Your task to perform on an android device: Empty the shopping cart on amazon. Search for "usb-a to usb-b" on amazon, select the first entry, and add it to the cart. Image 0: 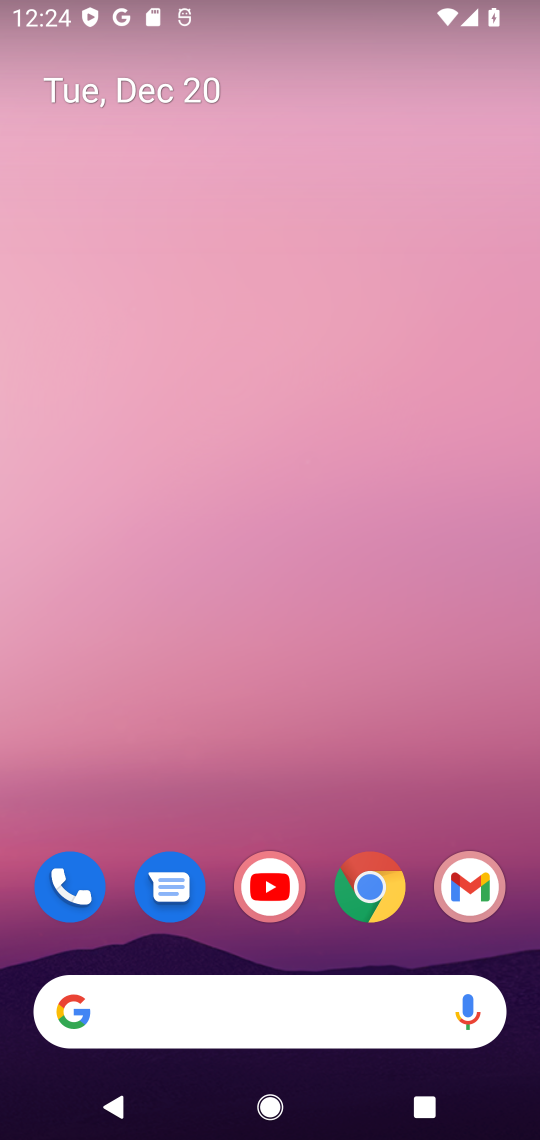
Step 0: click (382, 886)
Your task to perform on an android device: Empty the shopping cart on amazon. Search for "usb-a to usb-b" on amazon, select the first entry, and add it to the cart. Image 1: 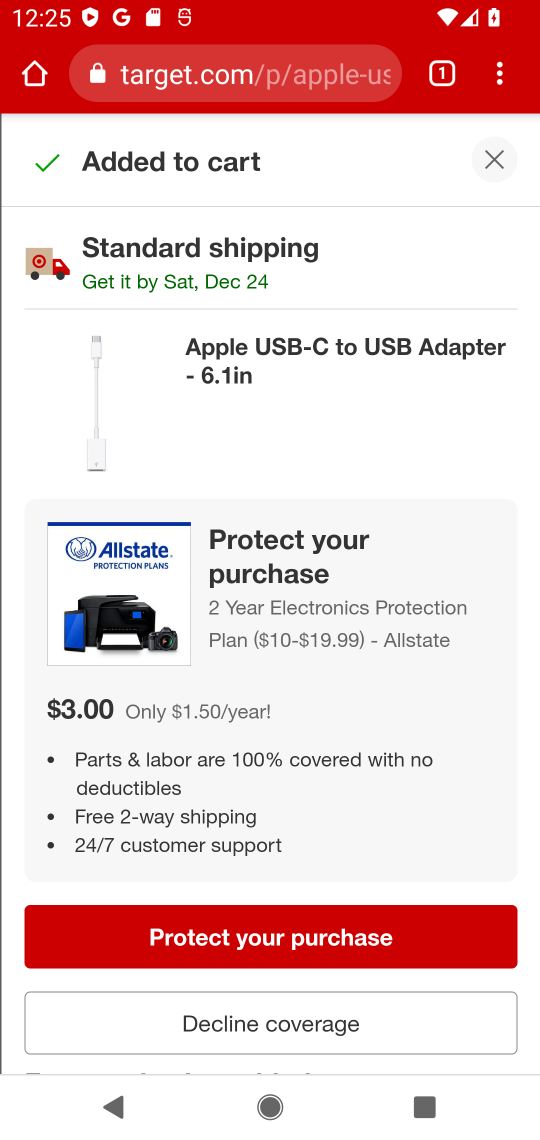
Step 1: click (219, 83)
Your task to perform on an android device: Empty the shopping cart on amazon. Search for "usb-a to usb-b" on amazon, select the first entry, and add it to the cart. Image 2: 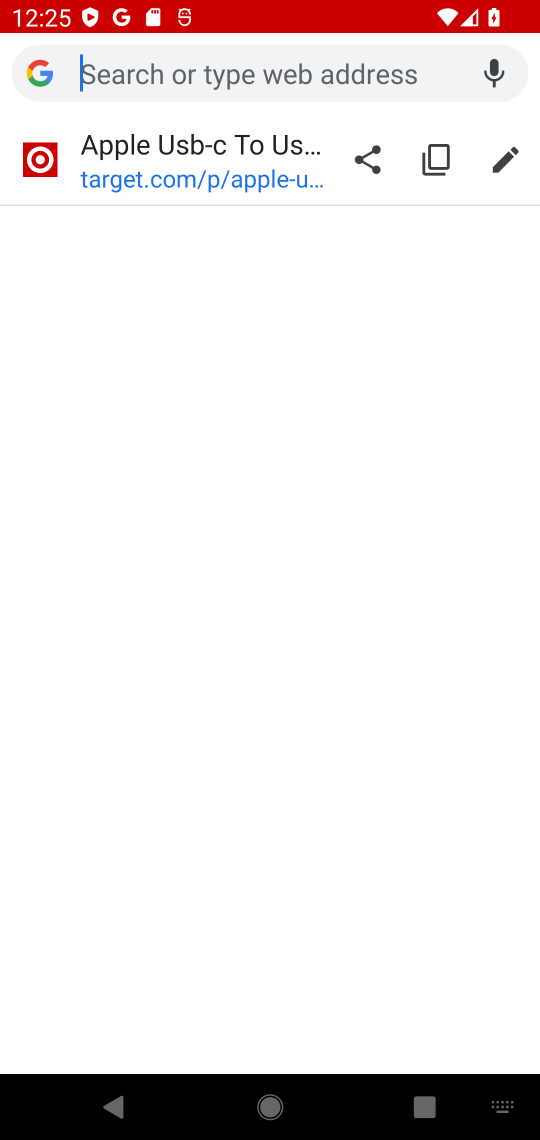
Step 2: type "amazon"
Your task to perform on an android device: Empty the shopping cart on amazon. Search for "usb-a to usb-b" on amazon, select the first entry, and add it to the cart. Image 3: 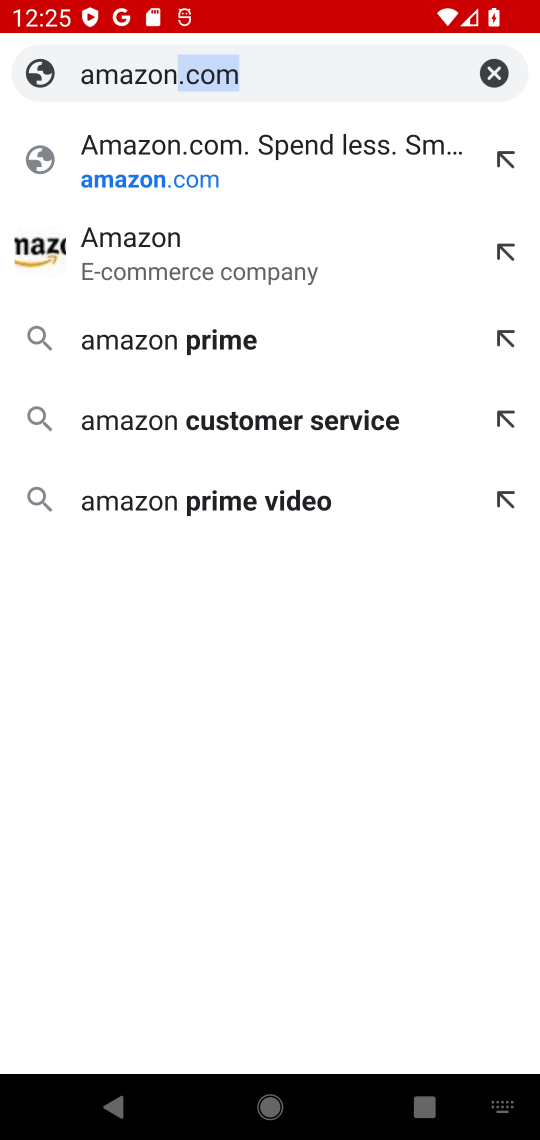
Step 3: click (241, 160)
Your task to perform on an android device: Empty the shopping cart on amazon. Search for "usb-a to usb-b" on amazon, select the first entry, and add it to the cart. Image 4: 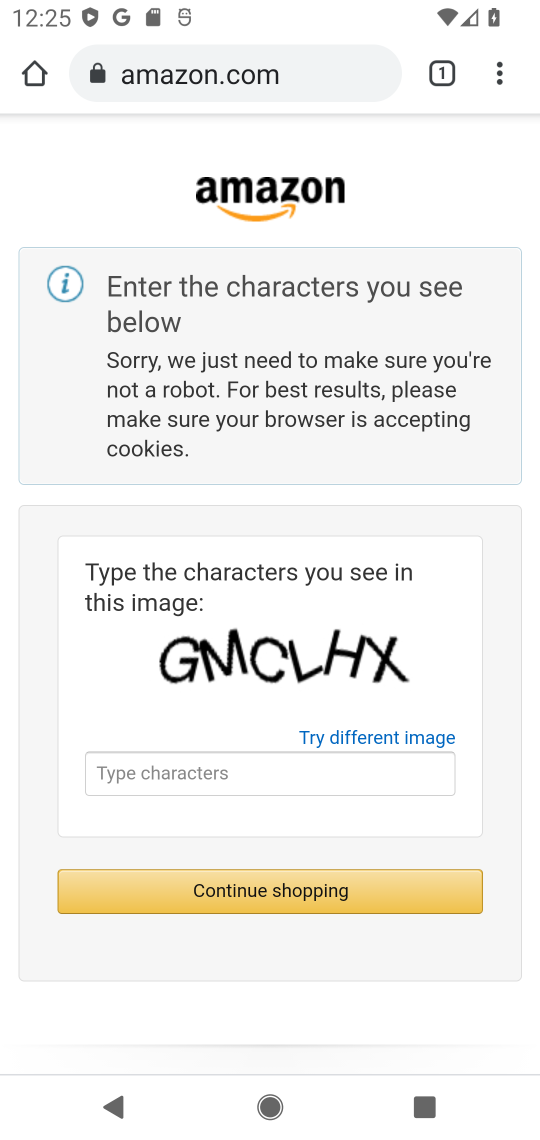
Step 4: click (227, 772)
Your task to perform on an android device: Empty the shopping cart on amazon. Search for "usb-a to usb-b" on amazon, select the first entry, and add it to the cart. Image 5: 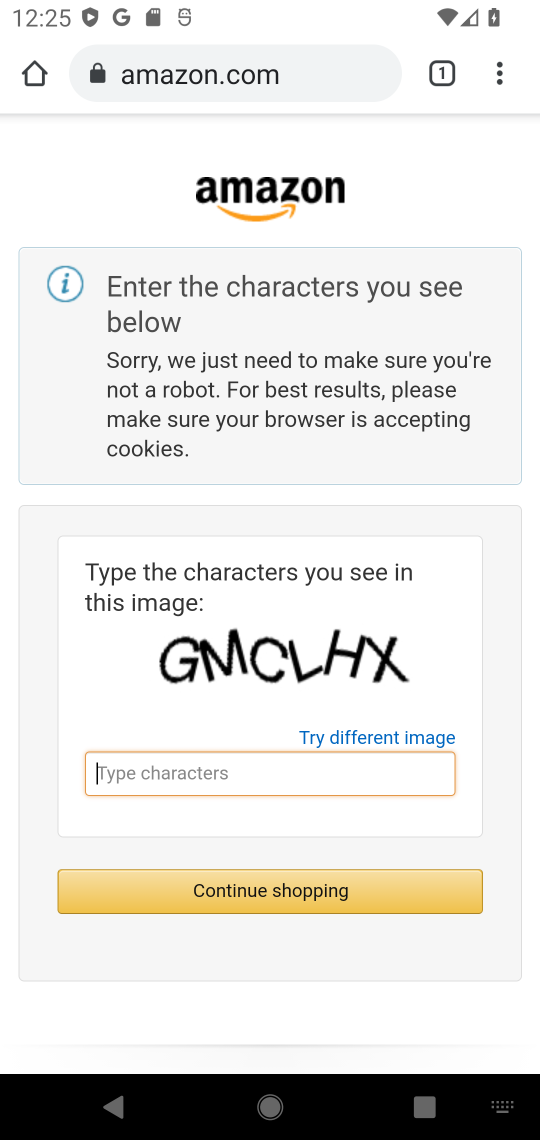
Step 5: type "GMCLHX"
Your task to perform on an android device: Empty the shopping cart on amazon. Search for "usb-a to usb-b" on amazon, select the first entry, and add it to the cart. Image 6: 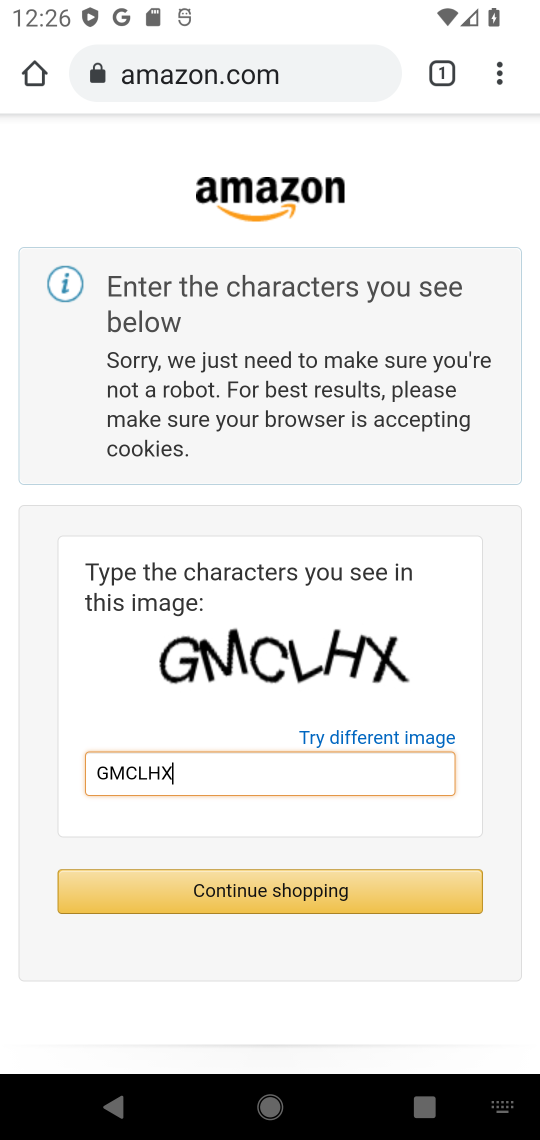
Step 6: click (259, 882)
Your task to perform on an android device: Empty the shopping cart on amazon. Search for "usb-a to usb-b" on amazon, select the first entry, and add it to the cart. Image 7: 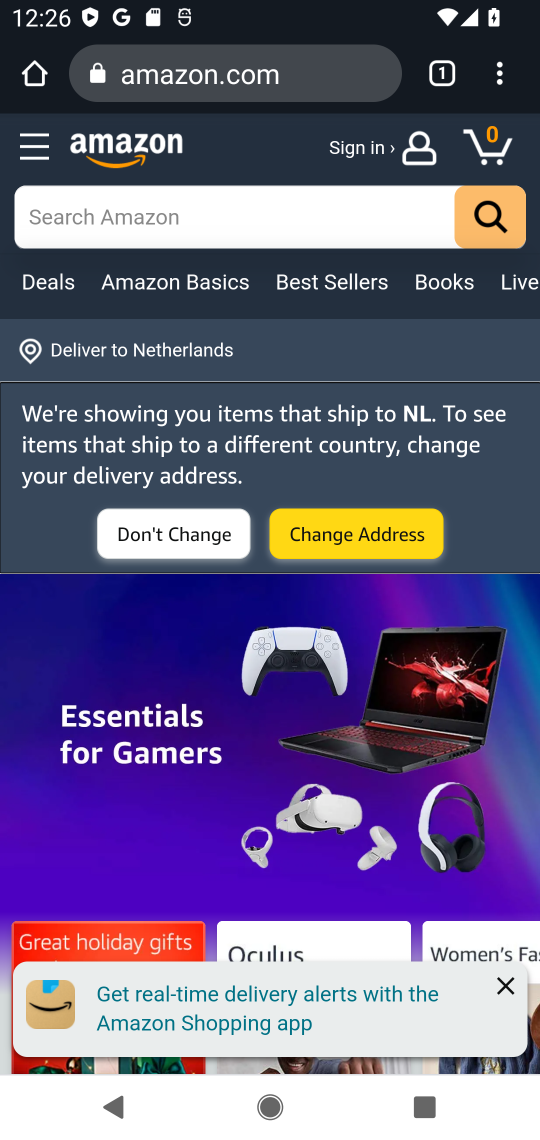
Step 7: click (226, 210)
Your task to perform on an android device: Empty the shopping cart on amazon. Search for "usb-a to usb-b" on amazon, select the first entry, and add it to the cart. Image 8: 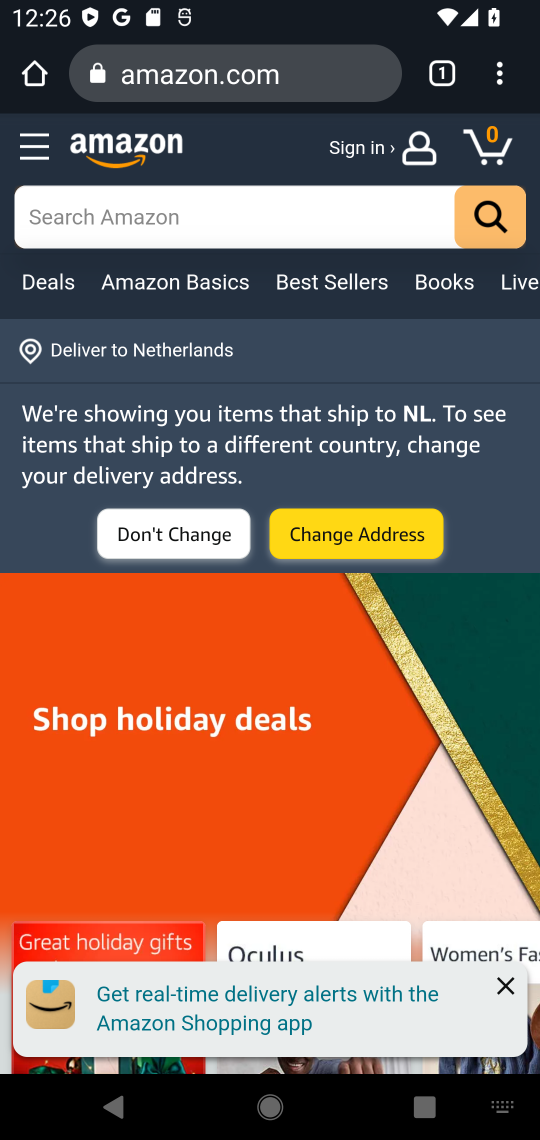
Step 8: type "usb-a to usb-b"
Your task to perform on an android device: Empty the shopping cart on amazon. Search for "usb-a to usb-b" on amazon, select the first entry, and add it to the cart. Image 9: 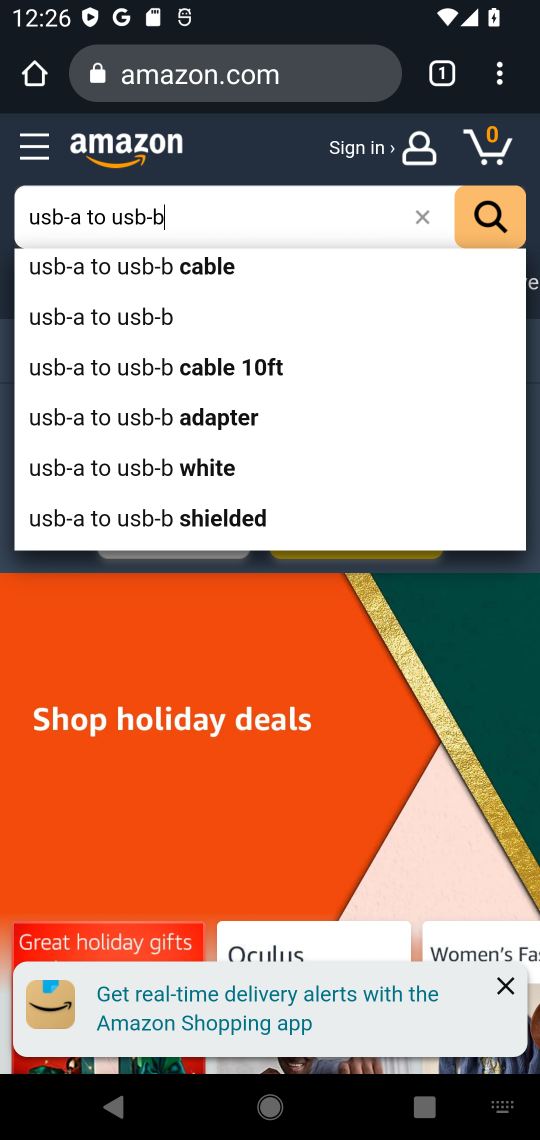
Step 9: click (210, 266)
Your task to perform on an android device: Empty the shopping cart on amazon. Search for "usb-a to usb-b" on amazon, select the first entry, and add it to the cart. Image 10: 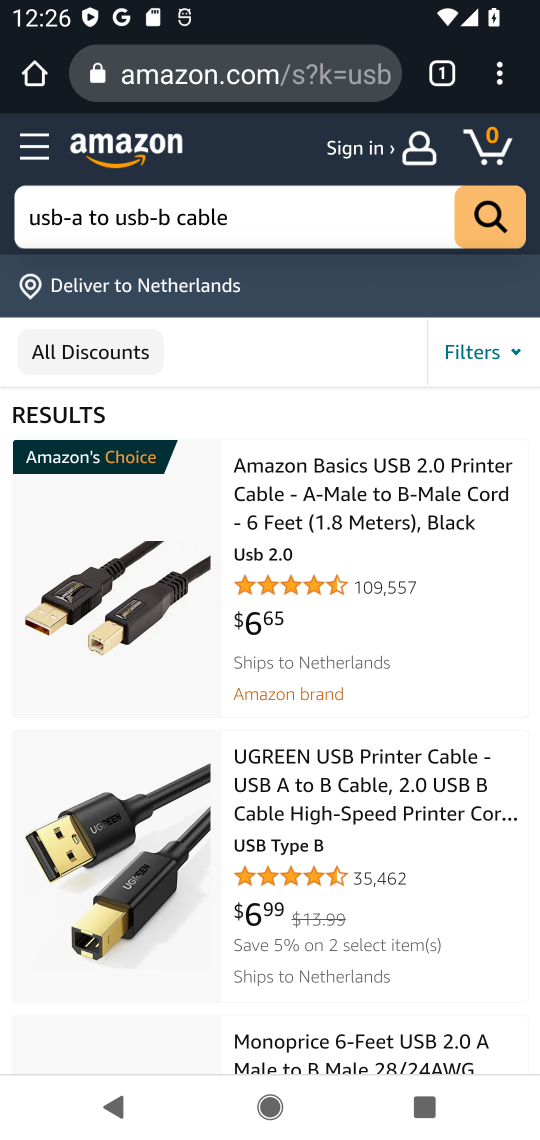
Step 10: click (441, 525)
Your task to perform on an android device: Empty the shopping cart on amazon. Search for "usb-a to usb-b" on amazon, select the first entry, and add it to the cart. Image 11: 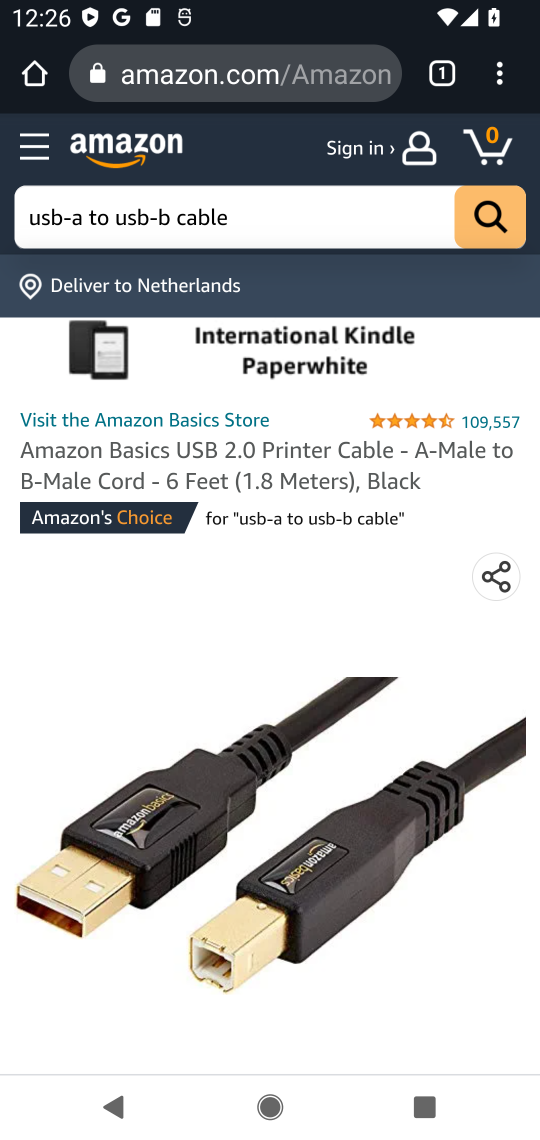
Step 11: drag from (309, 961) to (326, 381)
Your task to perform on an android device: Empty the shopping cart on amazon. Search for "usb-a to usb-b" on amazon, select the first entry, and add it to the cart. Image 12: 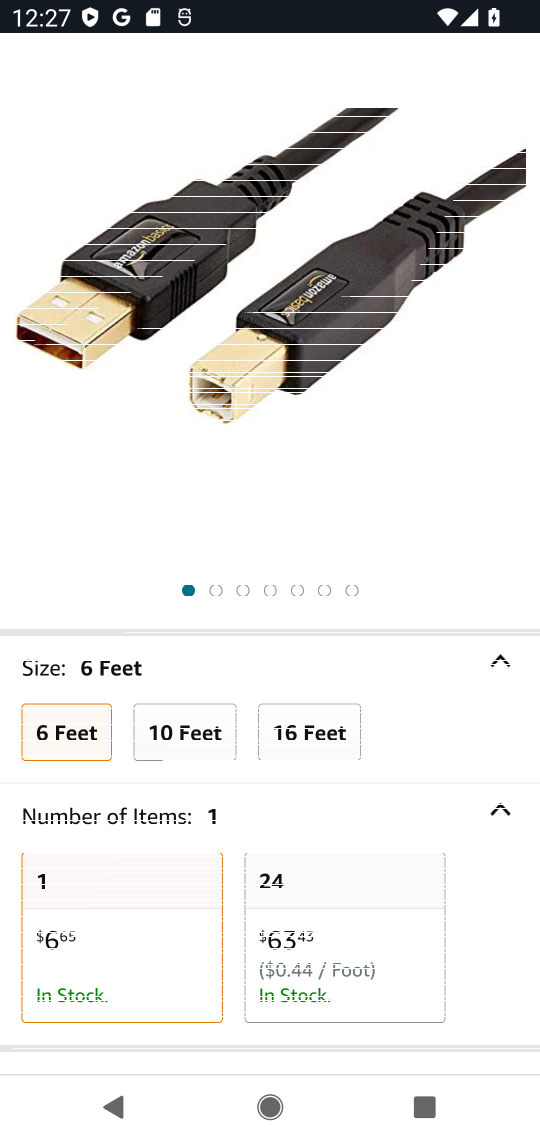
Step 12: drag from (311, 879) to (346, 282)
Your task to perform on an android device: Empty the shopping cart on amazon. Search for "usb-a to usb-b" on amazon, select the first entry, and add it to the cart. Image 13: 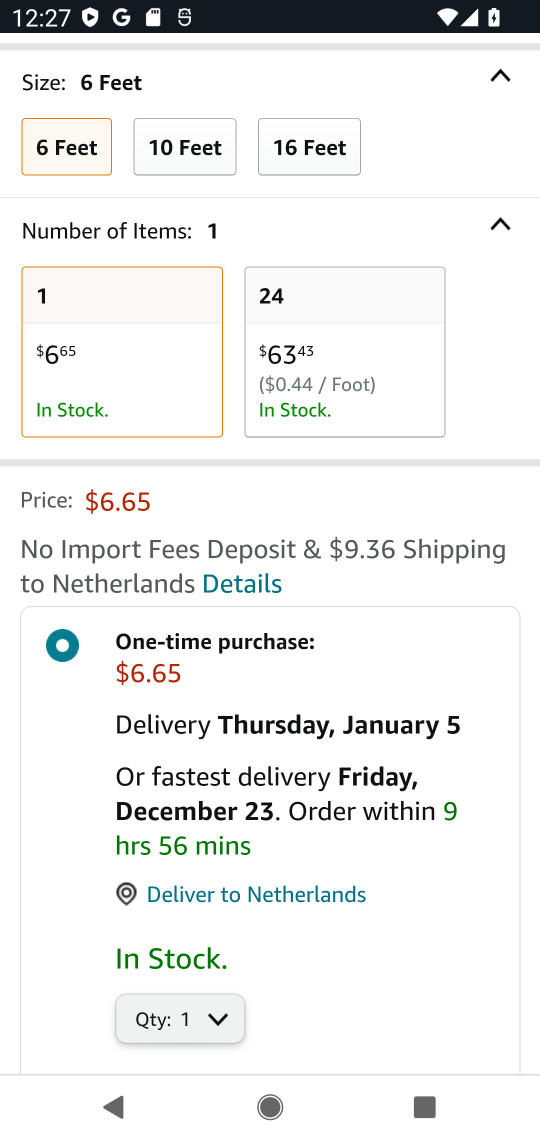
Step 13: drag from (327, 841) to (340, 246)
Your task to perform on an android device: Empty the shopping cart on amazon. Search for "usb-a to usb-b" on amazon, select the first entry, and add it to the cart. Image 14: 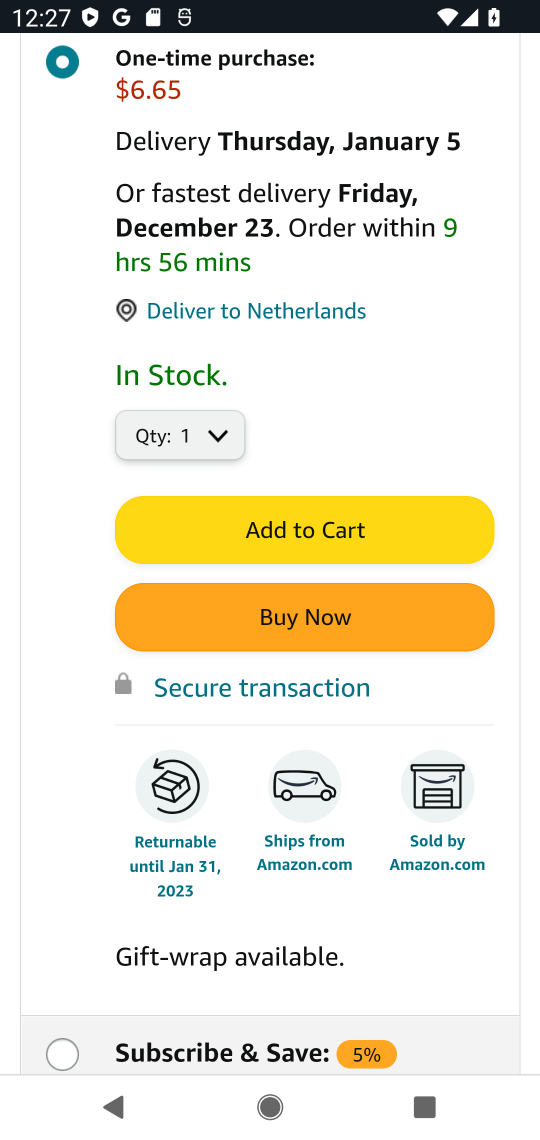
Step 14: click (280, 527)
Your task to perform on an android device: Empty the shopping cart on amazon. Search for "usb-a to usb-b" on amazon, select the first entry, and add it to the cart. Image 15: 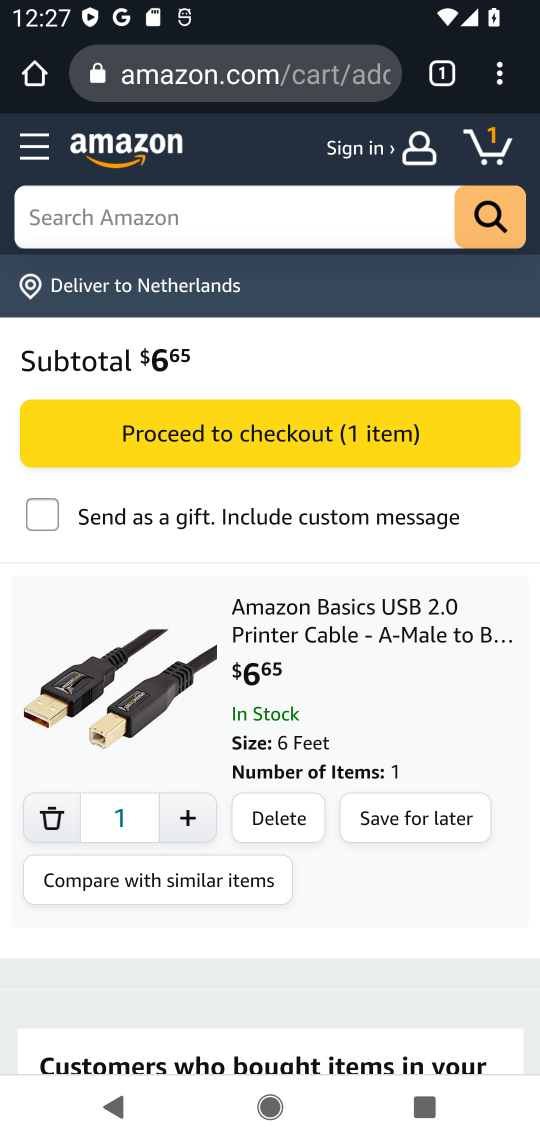
Step 15: click (281, 433)
Your task to perform on an android device: Empty the shopping cart on amazon. Search for "usb-a to usb-b" on amazon, select the first entry, and add it to the cart. Image 16: 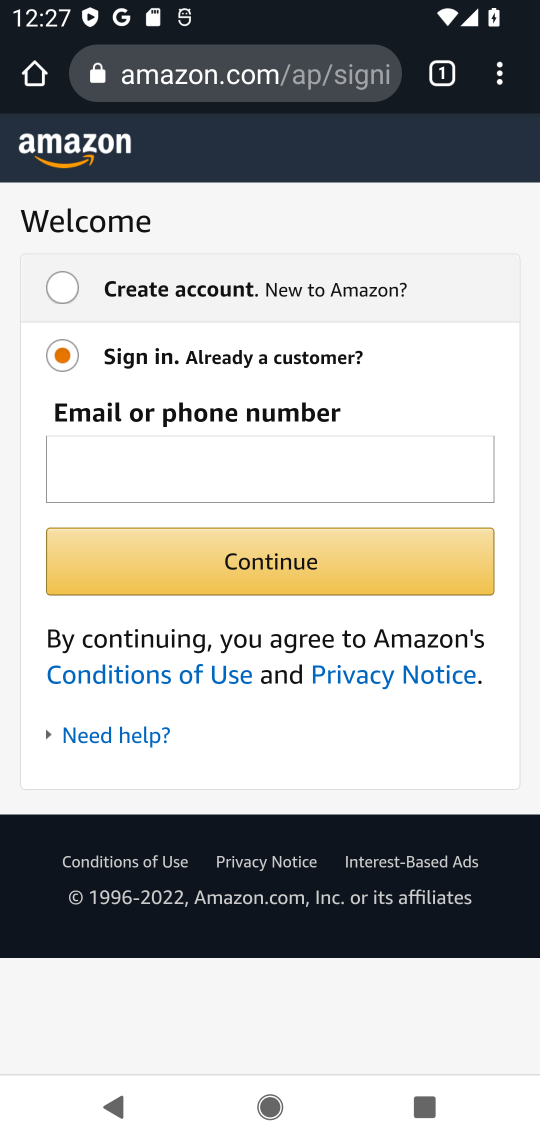
Step 16: task complete